Your task to perform on an android device: Go to Reddit.com Image 0: 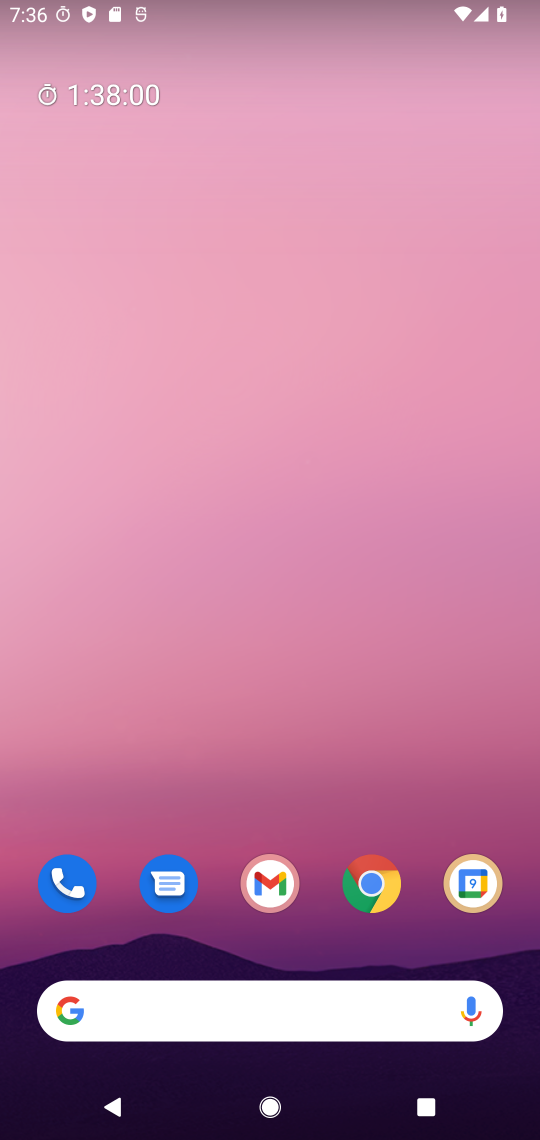
Step 0: click (346, 863)
Your task to perform on an android device: Go to Reddit.com Image 1: 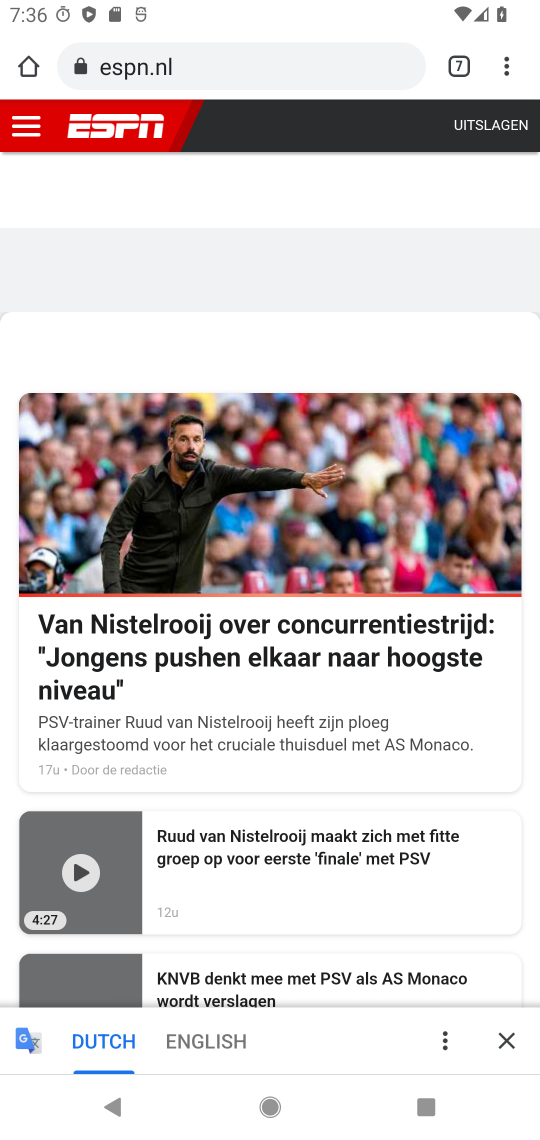
Step 1: click (449, 56)
Your task to perform on an android device: Go to Reddit.com Image 2: 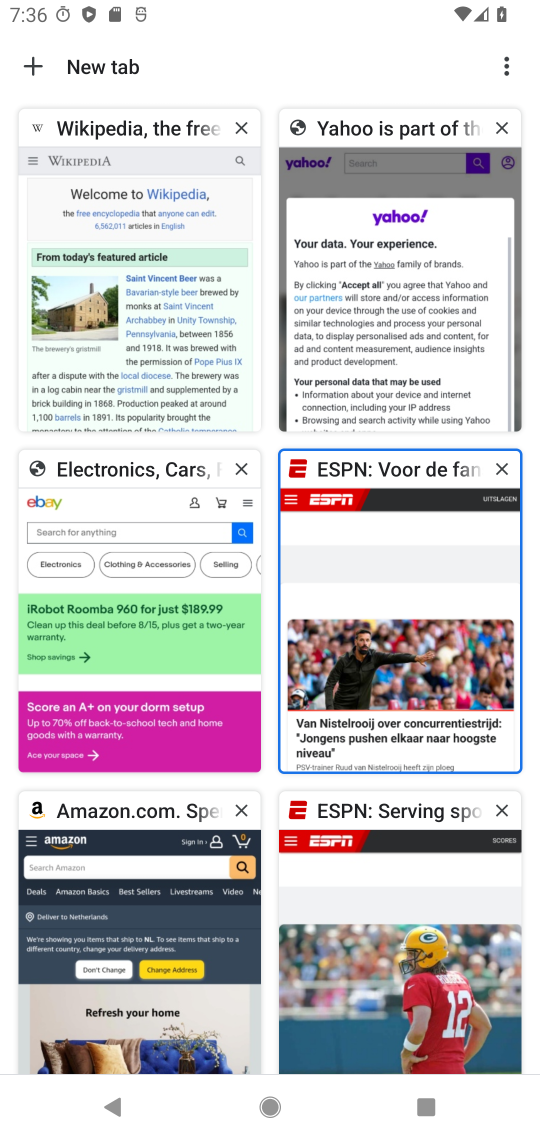
Step 2: click (22, 47)
Your task to perform on an android device: Go to Reddit.com Image 3: 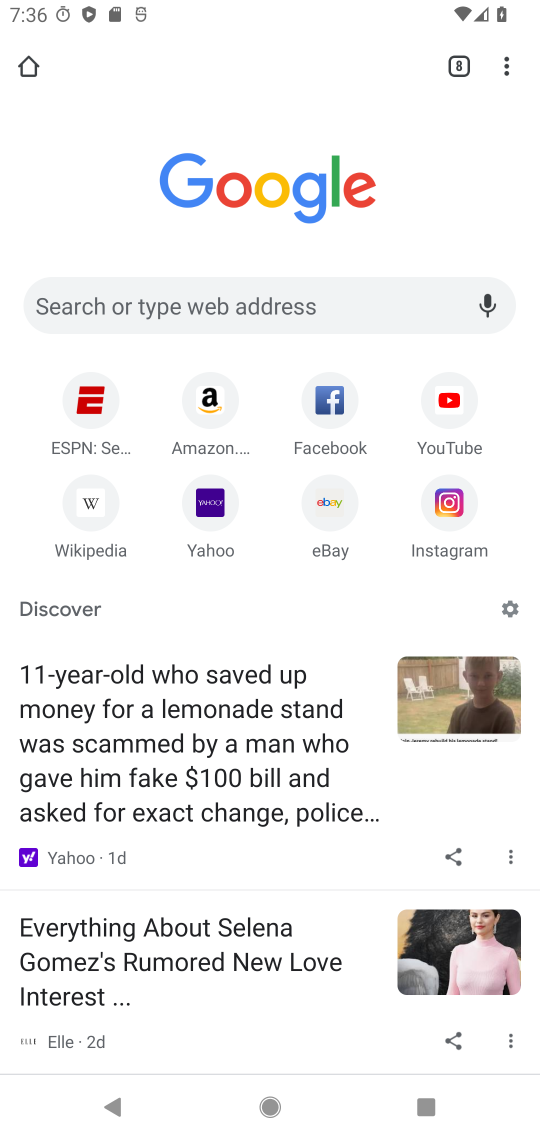
Step 3: click (239, 282)
Your task to perform on an android device: Go to Reddit.com Image 4: 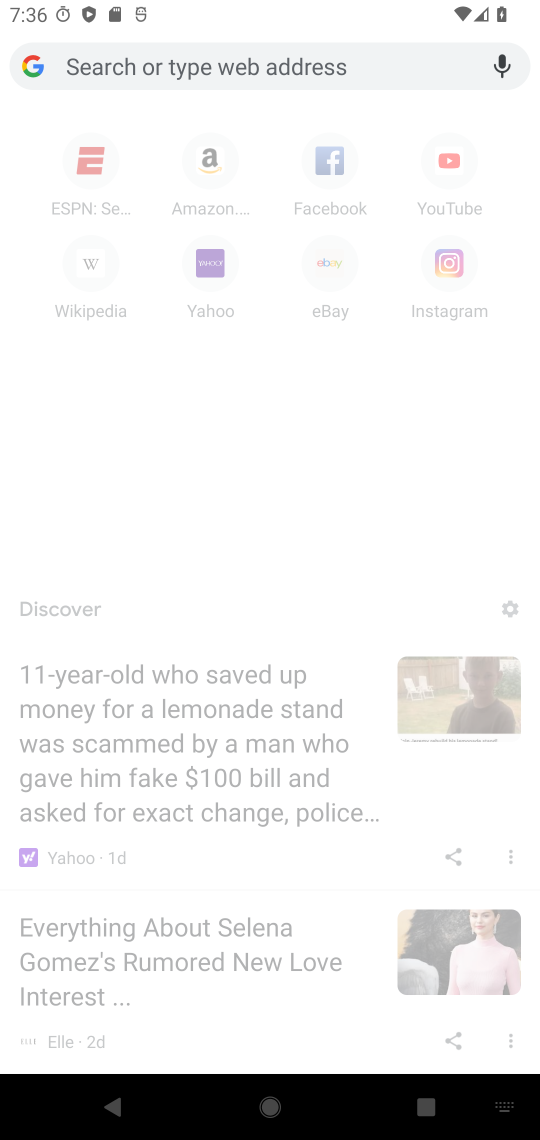
Step 4: type "Reddit.com"
Your task to perform on an android device: Go to Reddit.com Image 5: 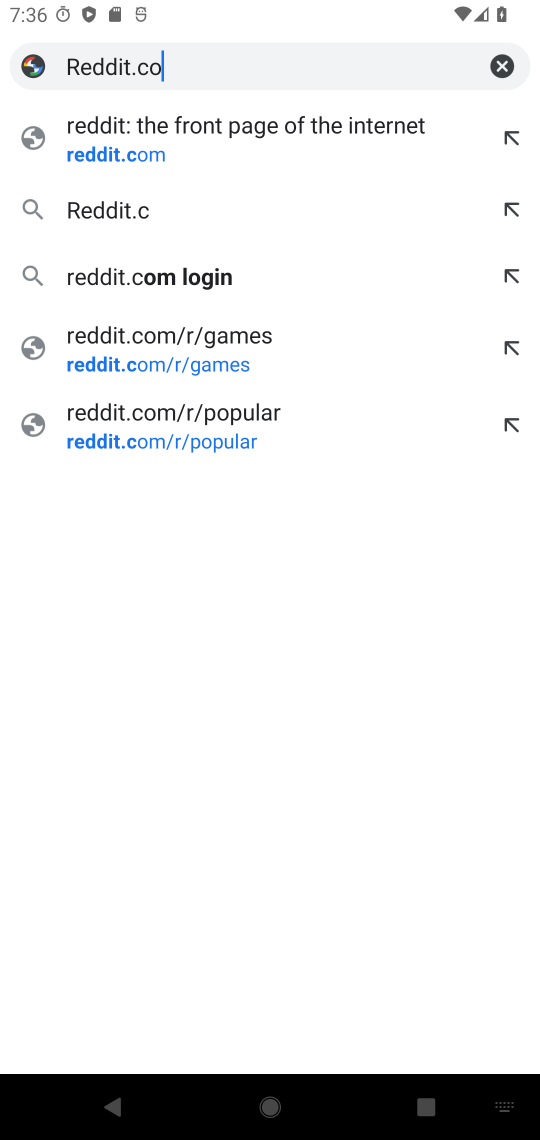
Step 5: type ""
Your task to perform on an android device: Go to Reddit.com Image 6: 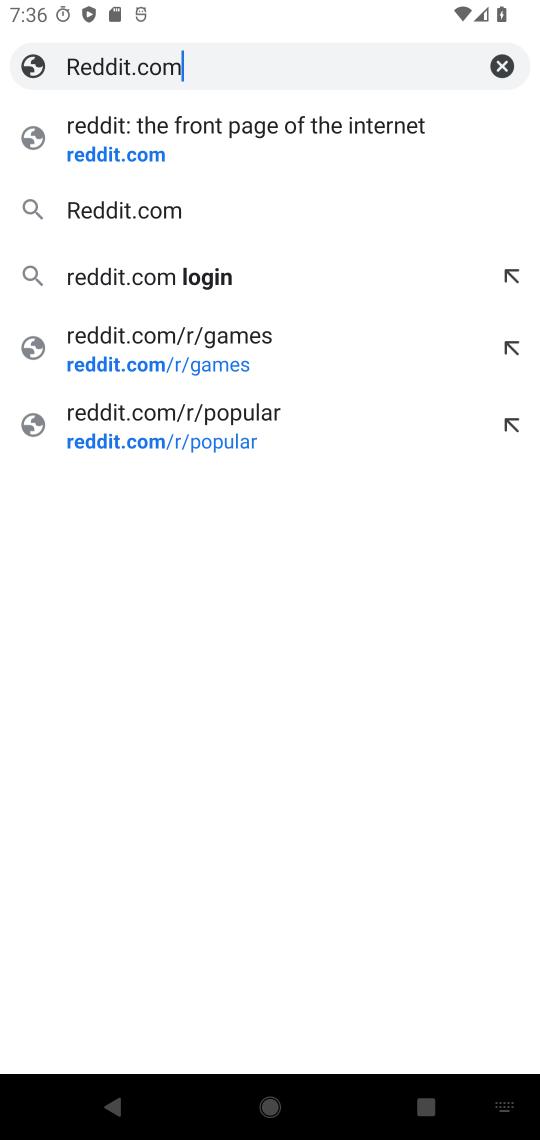
Step 6: click (195, 158)
Your task to perform on an android device: Go to Reddit.com Image 7: 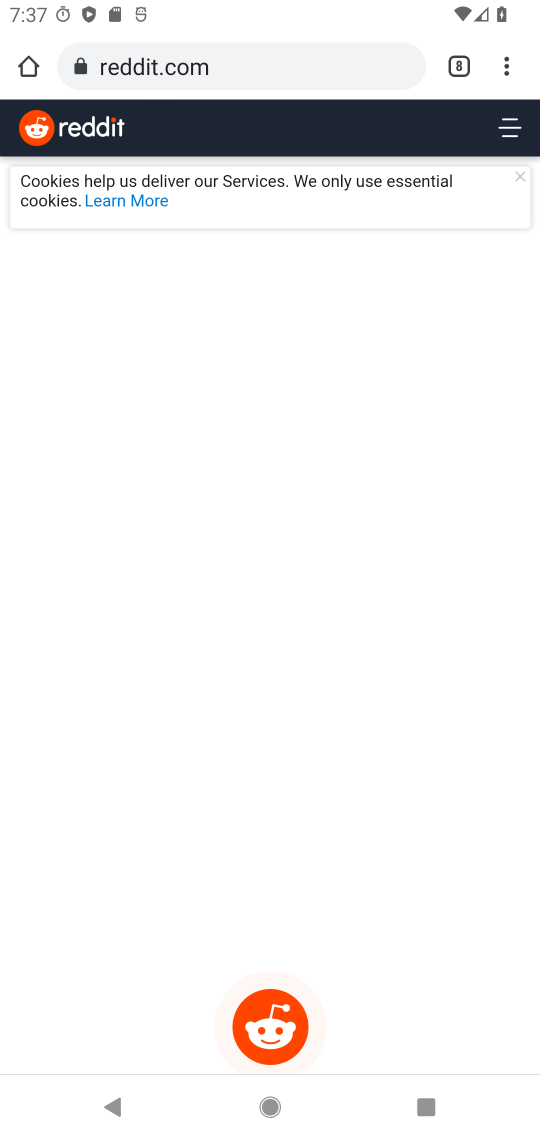
Step 7: task complete